Your task to perform on an android device: open chrome privacy settings Image 0: 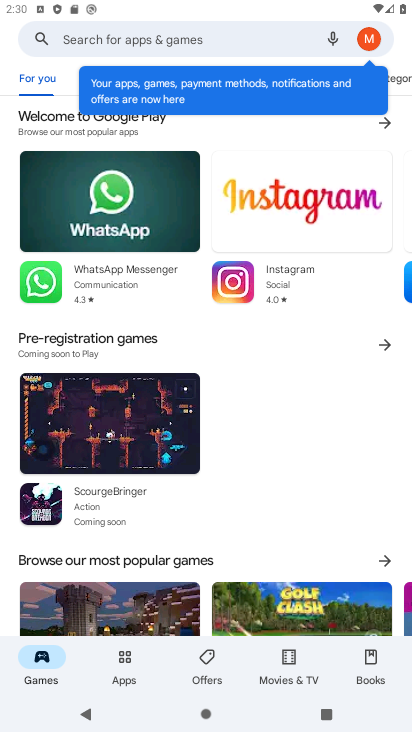
Step 0: press home button
Your task to perform on an android device: open chrome privacy settings Image 1: 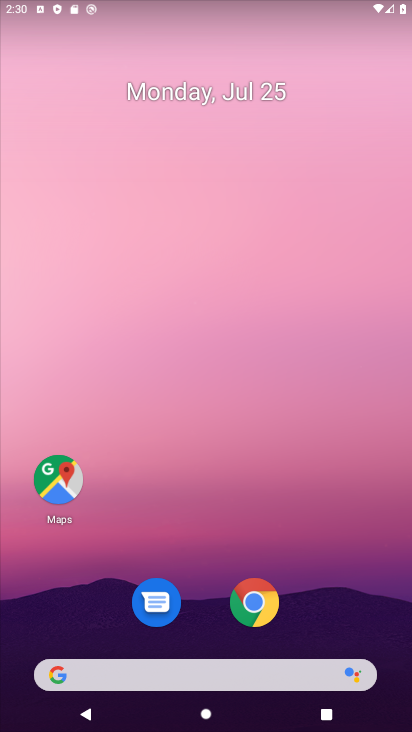
Step 1: click (255, 606)
Your task to perform on an android device: open chrome privacy settings Image 2: 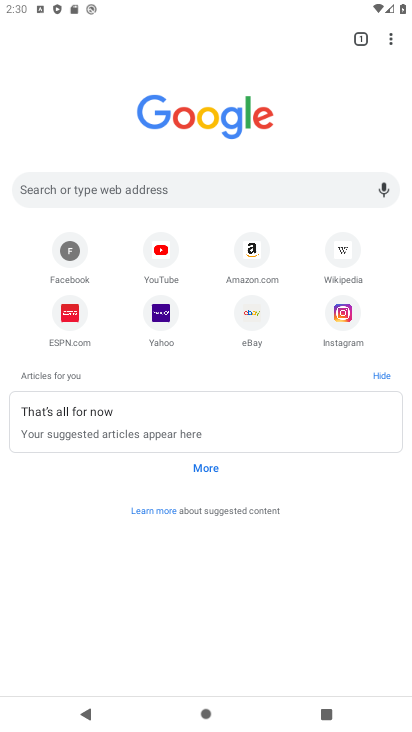
Step 2: click (390, 35)
Your task to perform on an android device: open chrome privacy settings Image 3: 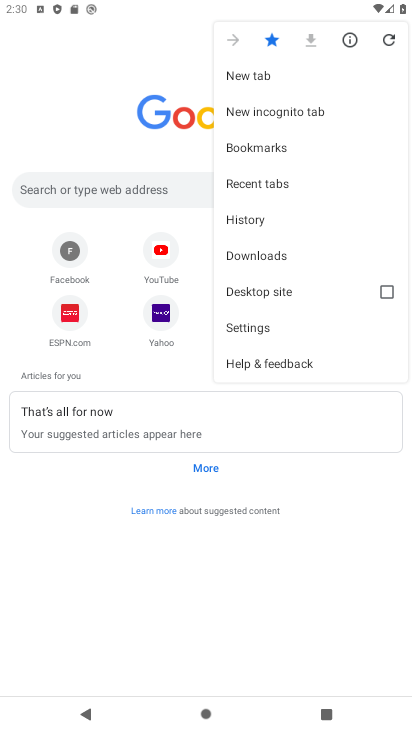
Step 3: click (253, 334)
Your task to perform on an android device: open chrome privacy settings Image 4: 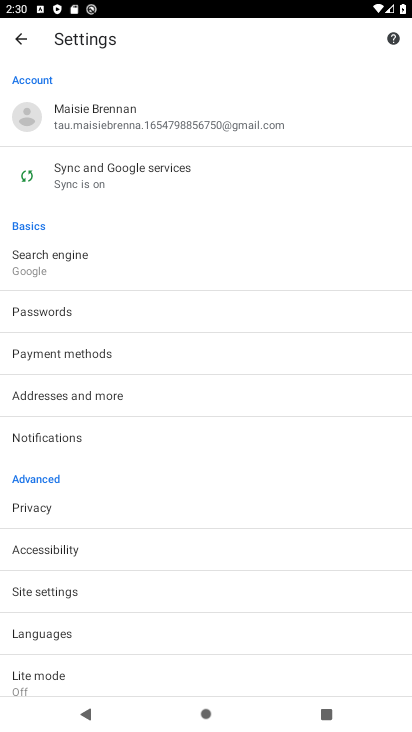
Step 4: click (51, 507)
Your task to perform on an android device: open chrome privacy settings Image 5: 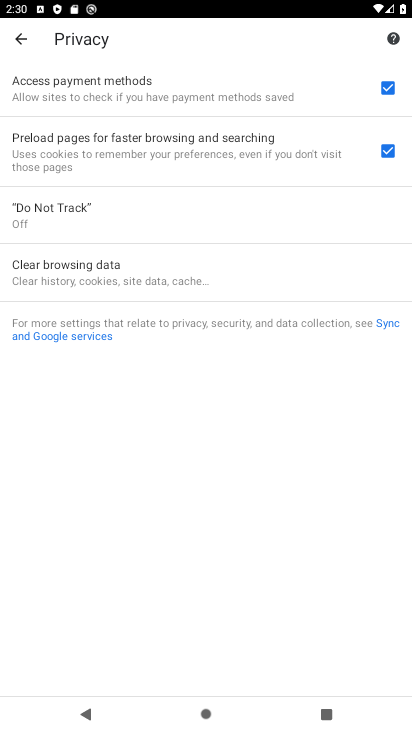
Step 5: task complete